Your task to perform on an android device: Open calendar and show me the fourth week of next month Image 0: 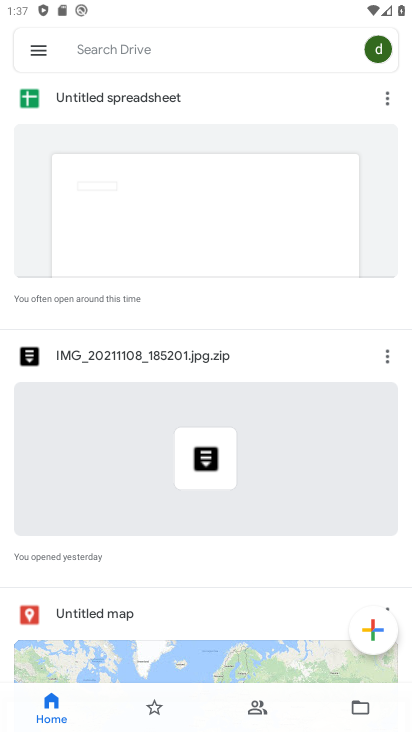
Step 0: press home button
Your task to perform on an android device: Open calendar and show me the fourth week of next month Image 1: 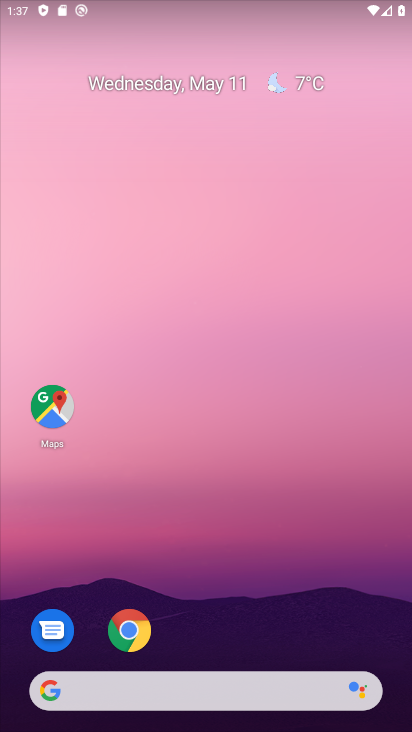
Step 1: drag from (380, 628) to (356, 73)
Your task to perform on an android device: Open calendar and show me the fourth week of next month Image 2: 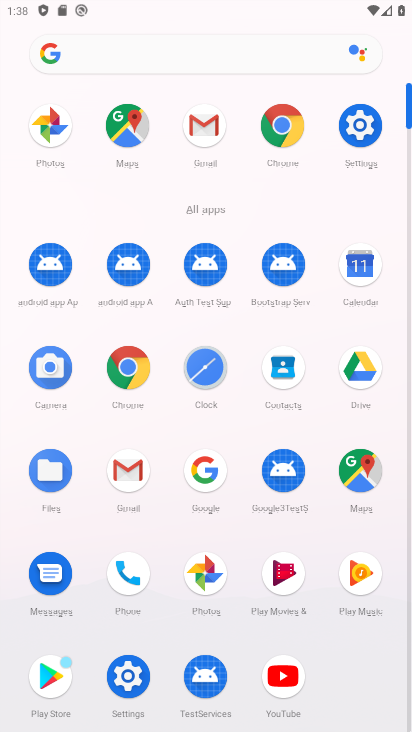
Step 2: click (368, 277)
Your task to perform on an android device: Open calendar and show me the fourth week of next month Image 3: 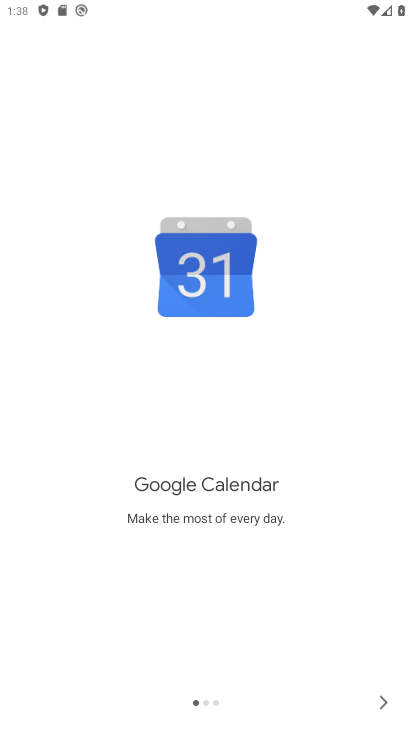
Step 3: click (384, 704)
Your task to perform on an android device: Open calendar and show me the fourth week of next month Image 4: 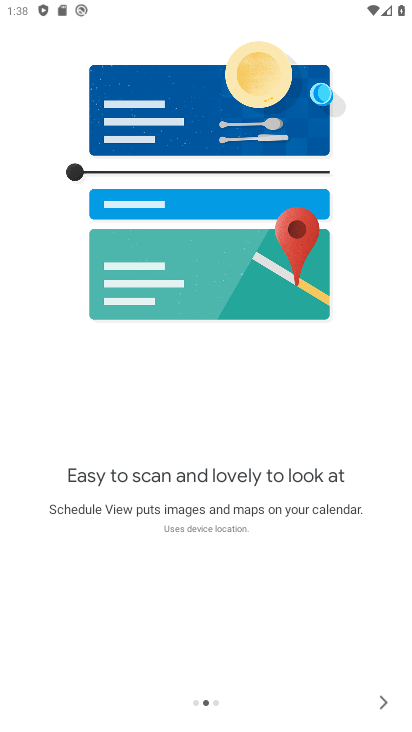
Step 4: click (384, 704)
Your task to perform on an android device: Open calendar and show me the fourth week of next month Image 5: 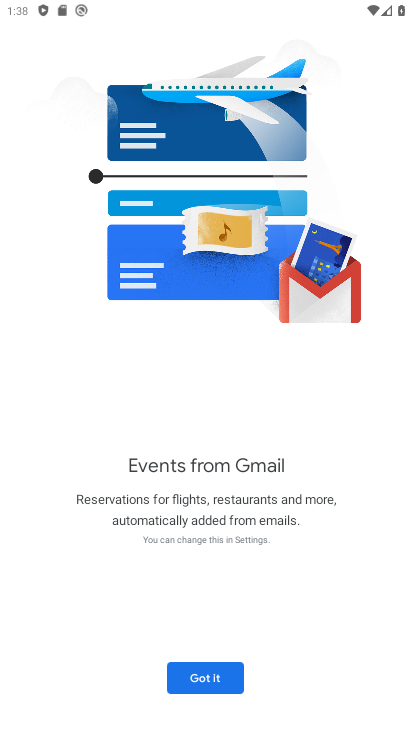
Step 5: click (222, 683)
Your task to perform on an android device: Open calendar and show me the fourth week of next month Image 6: 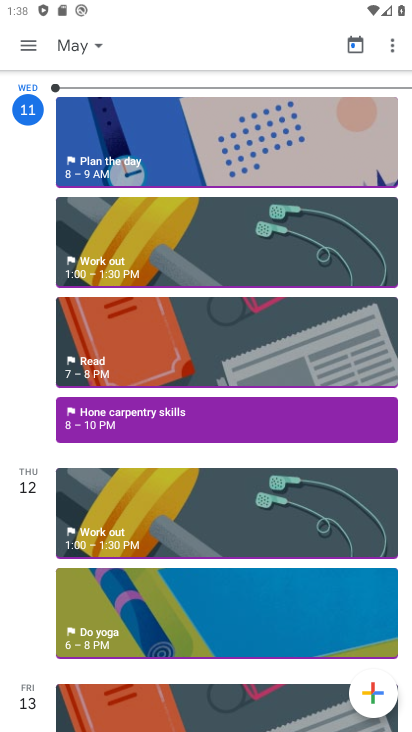
Step 6: click (74, 47)
Your task to perform on an android device: Open calendar and show me the fourth week of next month Image 7: 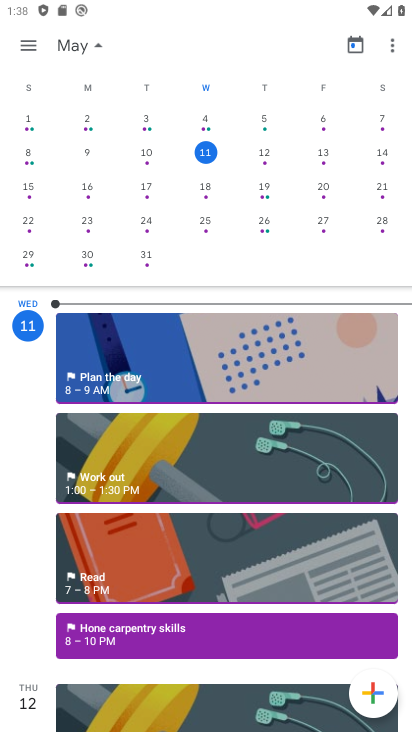
Step 7: drag from (324, 178) to (30, 126)
Your task to perform on an android device: Open calendar and show me the fourth week of next month Image 8: 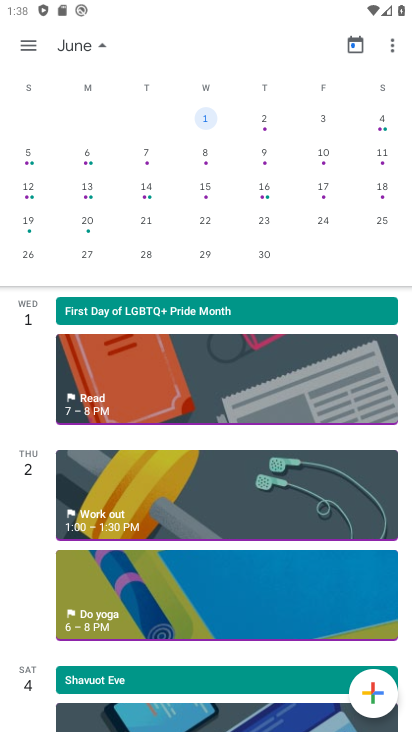
Step 8: click (145, 255)
Your task to perform on an android device: Open calendar and show me the fourth week of next month Image 9: 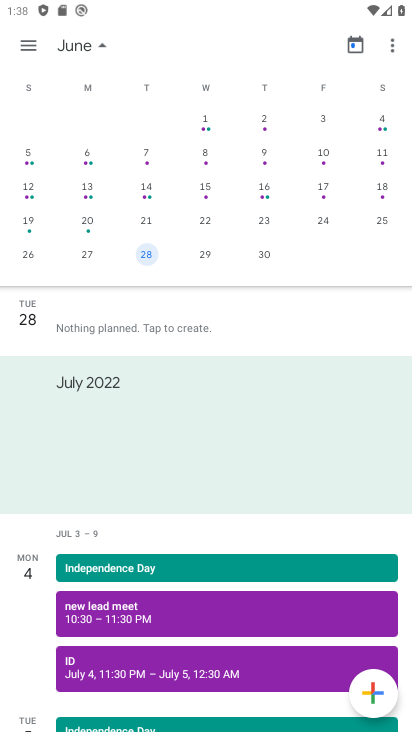
Step 9: task complete